Your task to perform on an android device: View the shopping cart on walmart. Search for "usb-b" on walmart, select the first entry, and add it to the cart. Image 0: 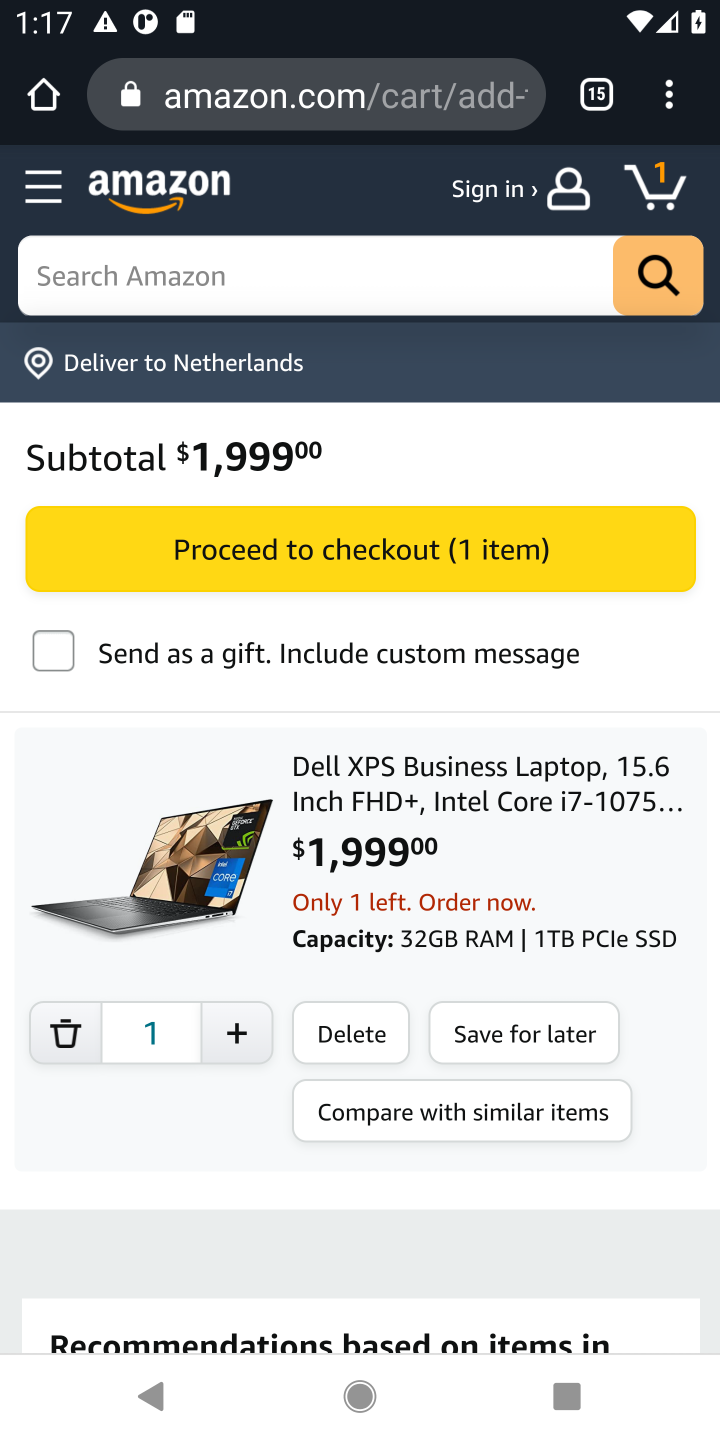
Step 0: press home button
Your task to perform on an android device: View the shopping cart on walmart. Search for "usb-b" on walmart, select the first entry, and add it to the cart. Image 1: 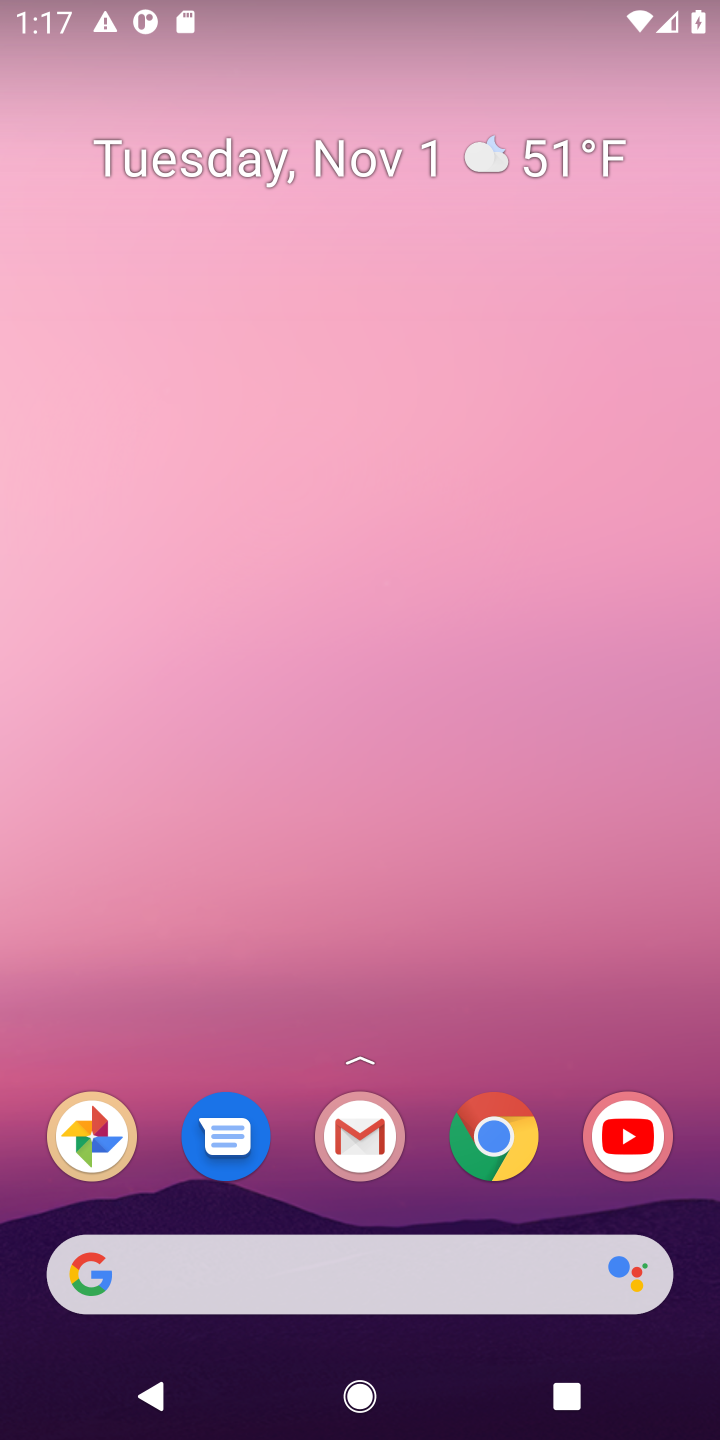
Step 1: click (143, 1268)
Your task to perform on an android device: View the shopping cart on walmart. Search for "usb-b" on walmart, select the first entry, and add it to the cart. Image 2: 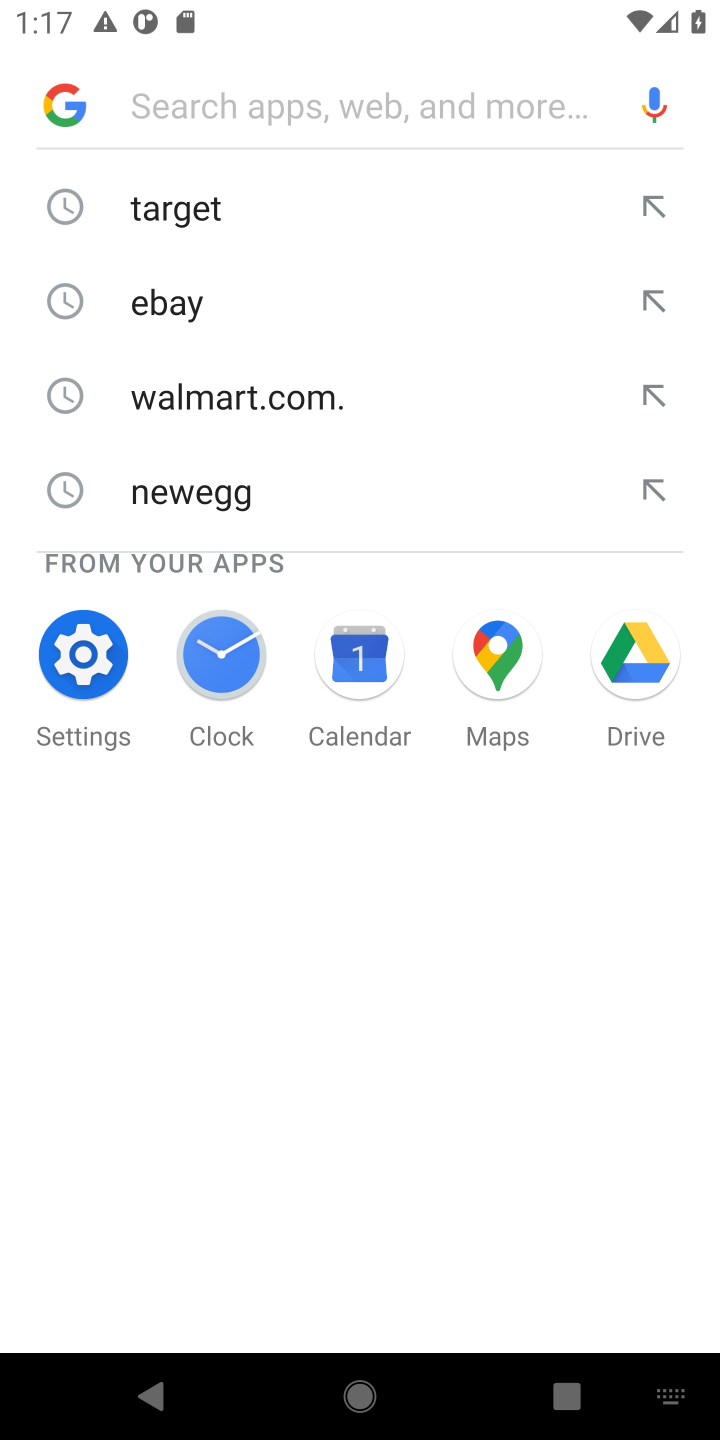
Step 2: type " walmart. "
Your task to perform on an android device: View the shopping cart on walmart. Search for "usb-b" on walmart, select the first entry, and add it to the cart. Image 3: 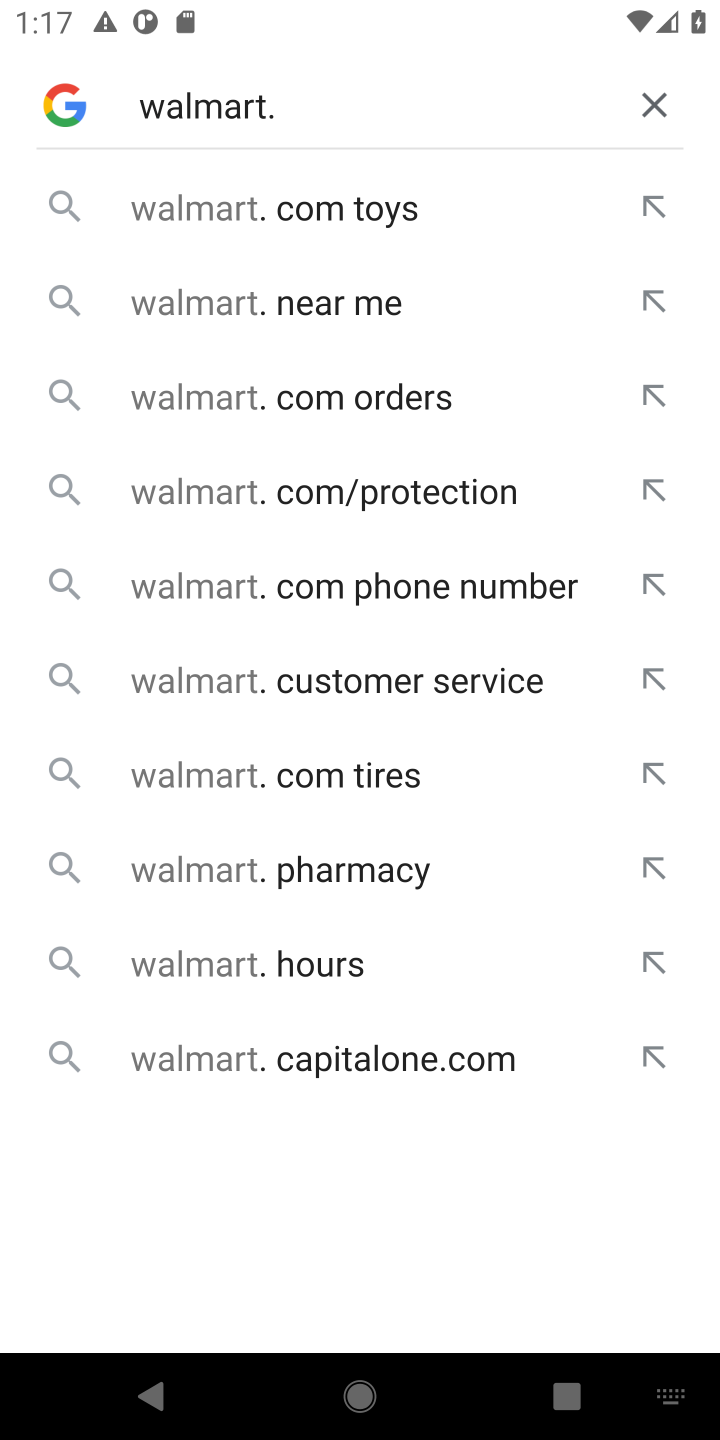
Step 3: press enter
Your task to perform on an android device: View the shopping cart on walmart. Search for "usb-b" on walmart, select the first entry, and add it to the cart. Image 4: 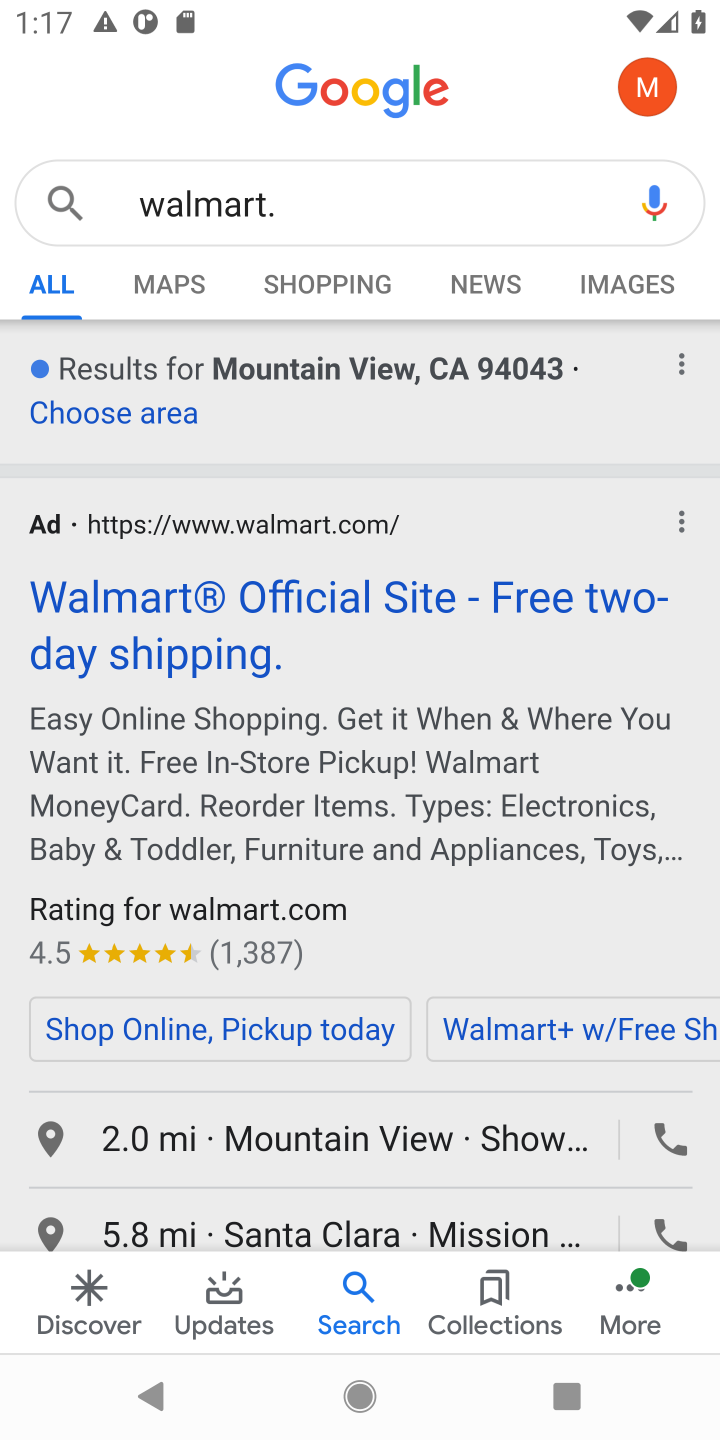
Step 4: click (252, 599)
Your task to perform on an android device: View the shopping cart on walmart. Search for "usb-b" on walmart, select the first entry, and add it to the cart. Image 5: 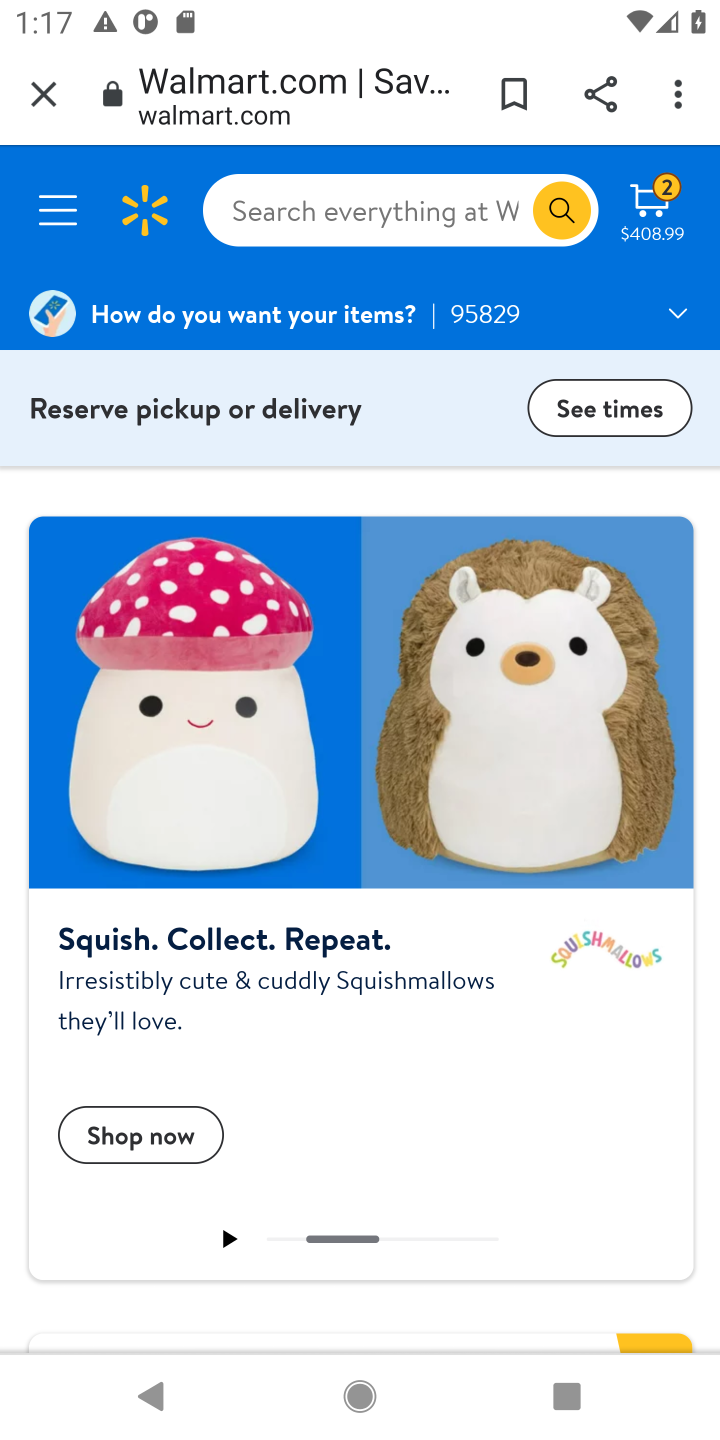
Step 5: click (273, 206)
Your task to perform on an android device: View the shopping cart on walmart. Search for "usb-b" on walmart, select the first entry, and add it to the cart. Image 6: 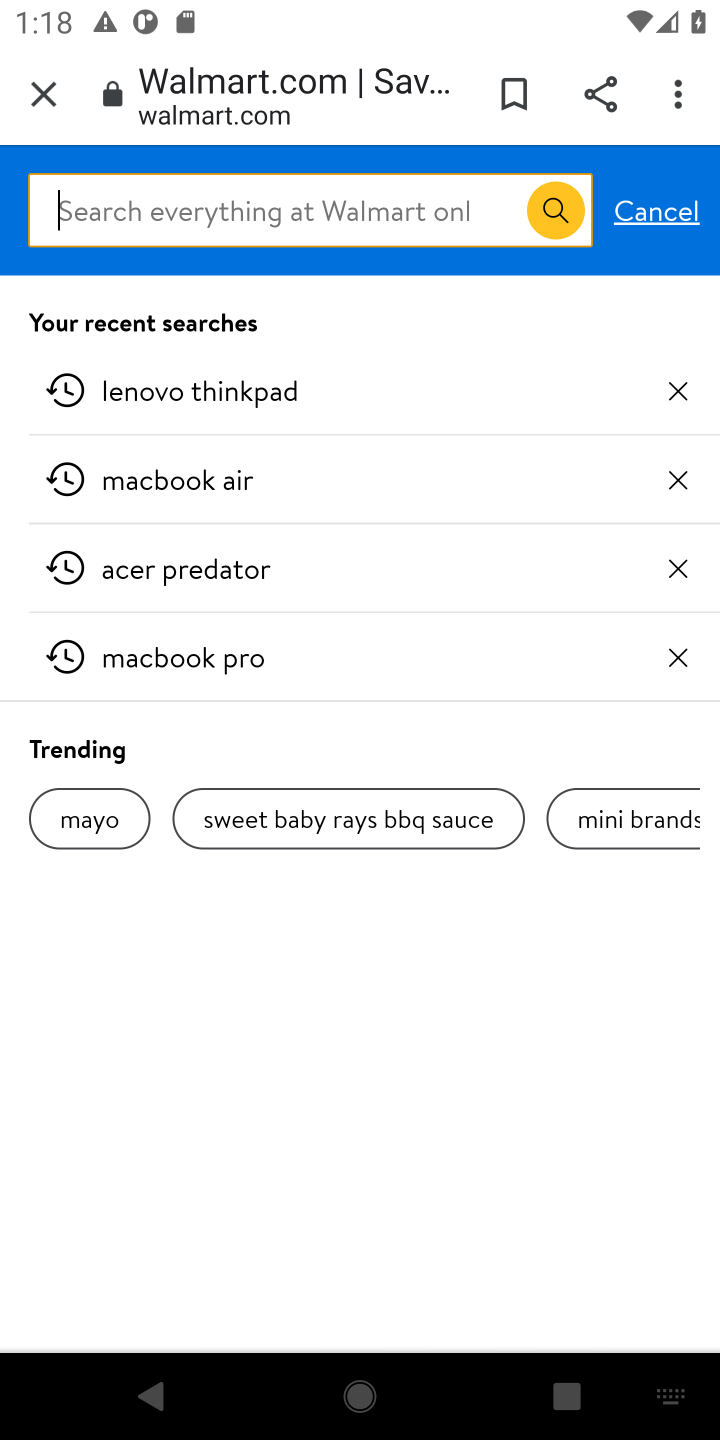
Step 6: type "usb b"
Your task to perform on an android device: View the shopping cart on walmart. Search for "usb-b" on walmart, select the first entry, and add it to the cart. Image 7: 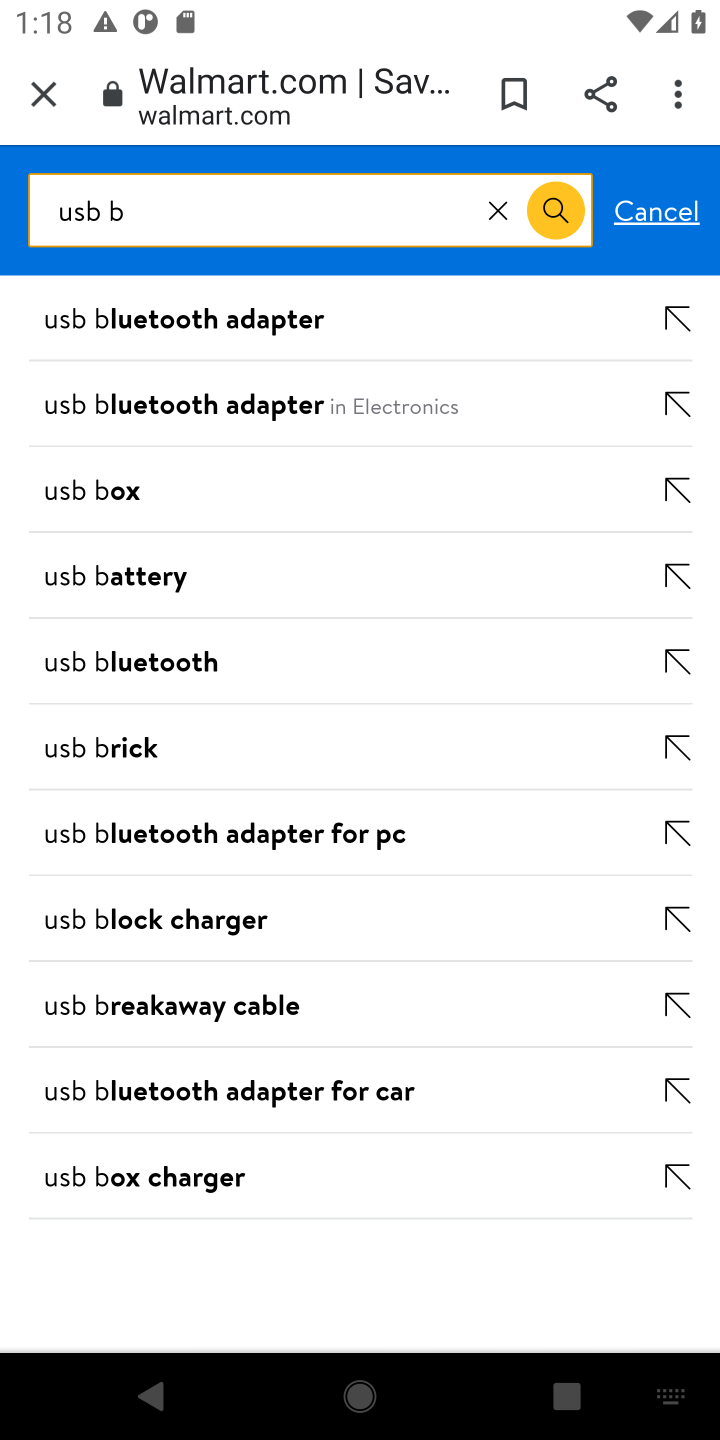
Step 7: click (558, 216)
Your task to perform on an android device: View the shopping cart on walmart. Search for "usb-b" on walmart, select the first entry, and add it to the cart. Image 8: 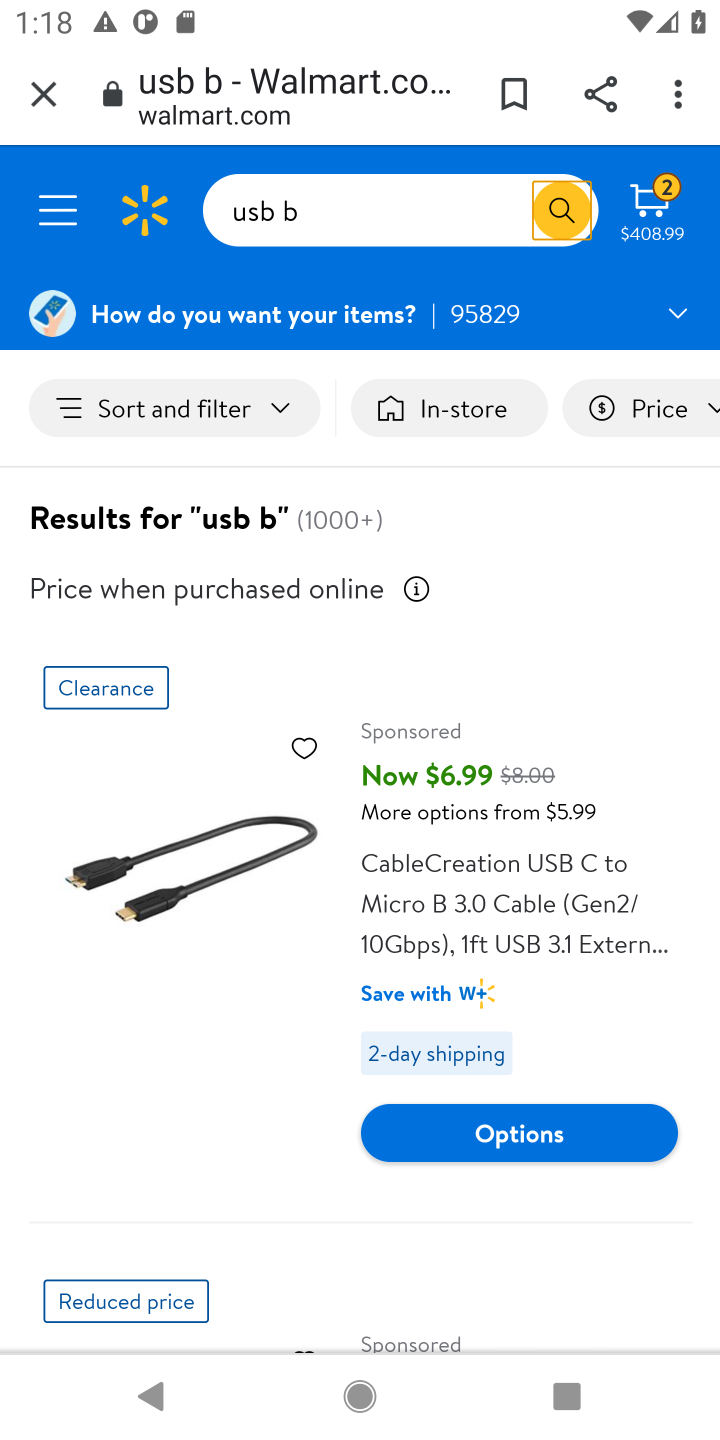
Step 8: drag from (527, 989) to (500, 590)
Your task to perform on an android device: View the shopping cart on walmart. Search for "usb-b" on walmart, select the first entry, and add it to the cart. Image 9: 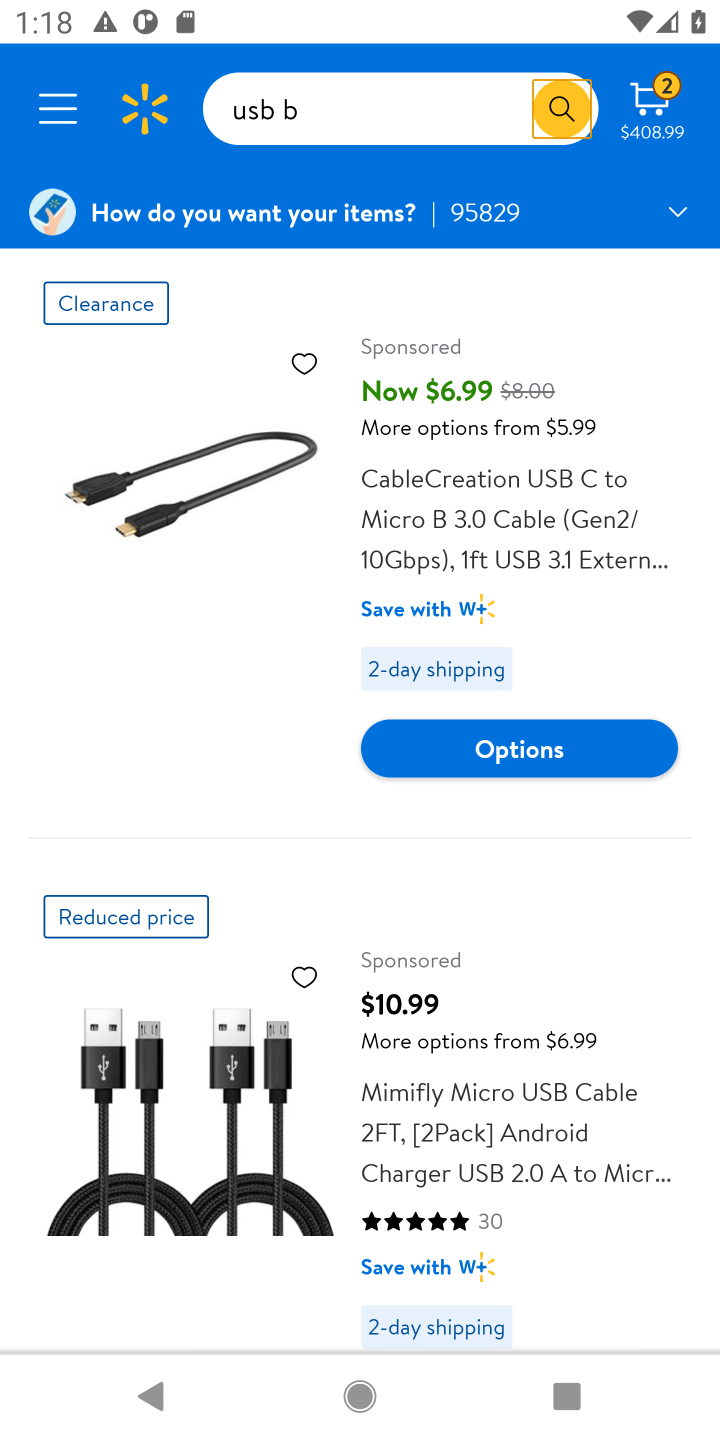
Step 9: drag from (494, 1182) to (532, 640)
Your task to perform on an android device: View the shopping cart on walmart. Search for "usb-b" on walmart, select the first entry, and add it to the cart. Image 10: 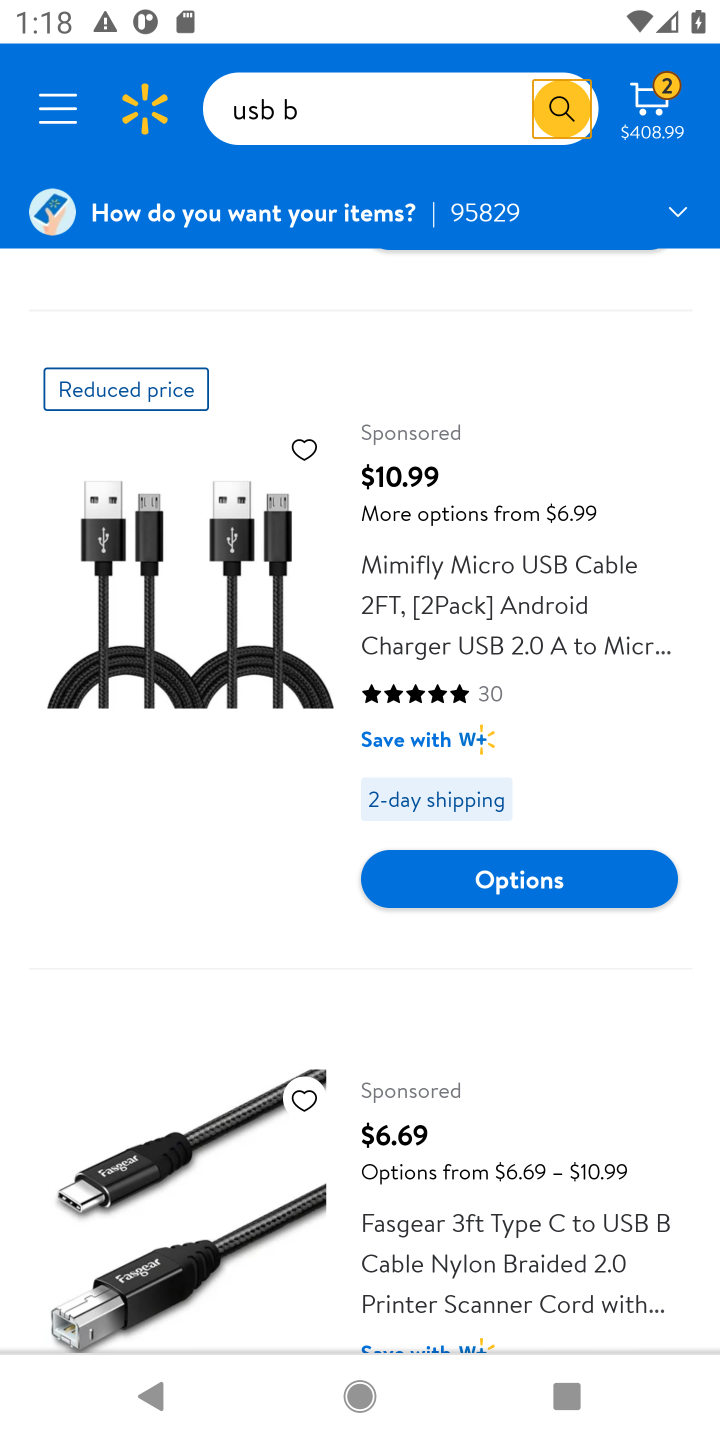
Step 10: drag from (522, 1013) to (504, 605)
Your task to perform on an android device: View the shopping cart on walmart. Search for "usb-b" on walmart, select the first entry, and add it to the cart. Image 11: 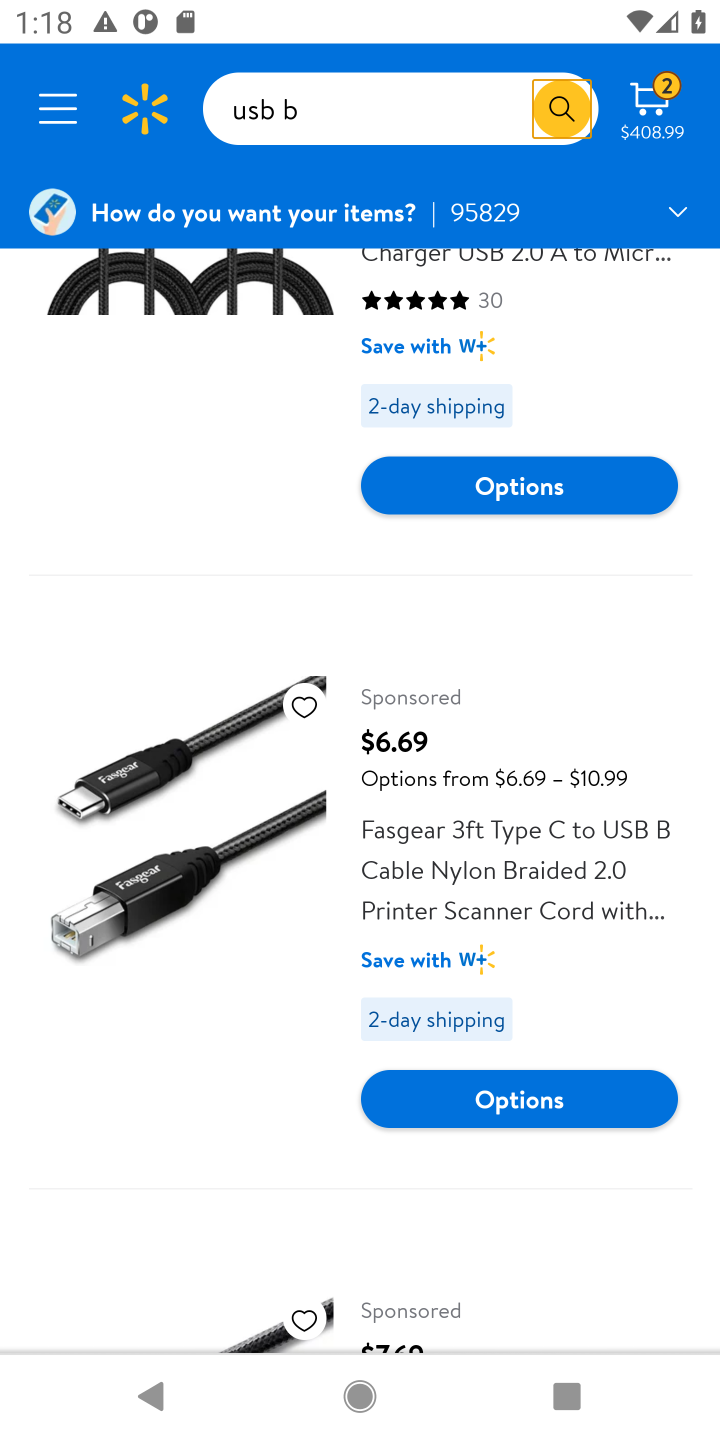
Step 11: click (510, 829)
Your task to perform on an android device: View the shopping cart on walmart. Search for "usb-b" on walmart, select the first entry, and add it to the cart. Image 12: 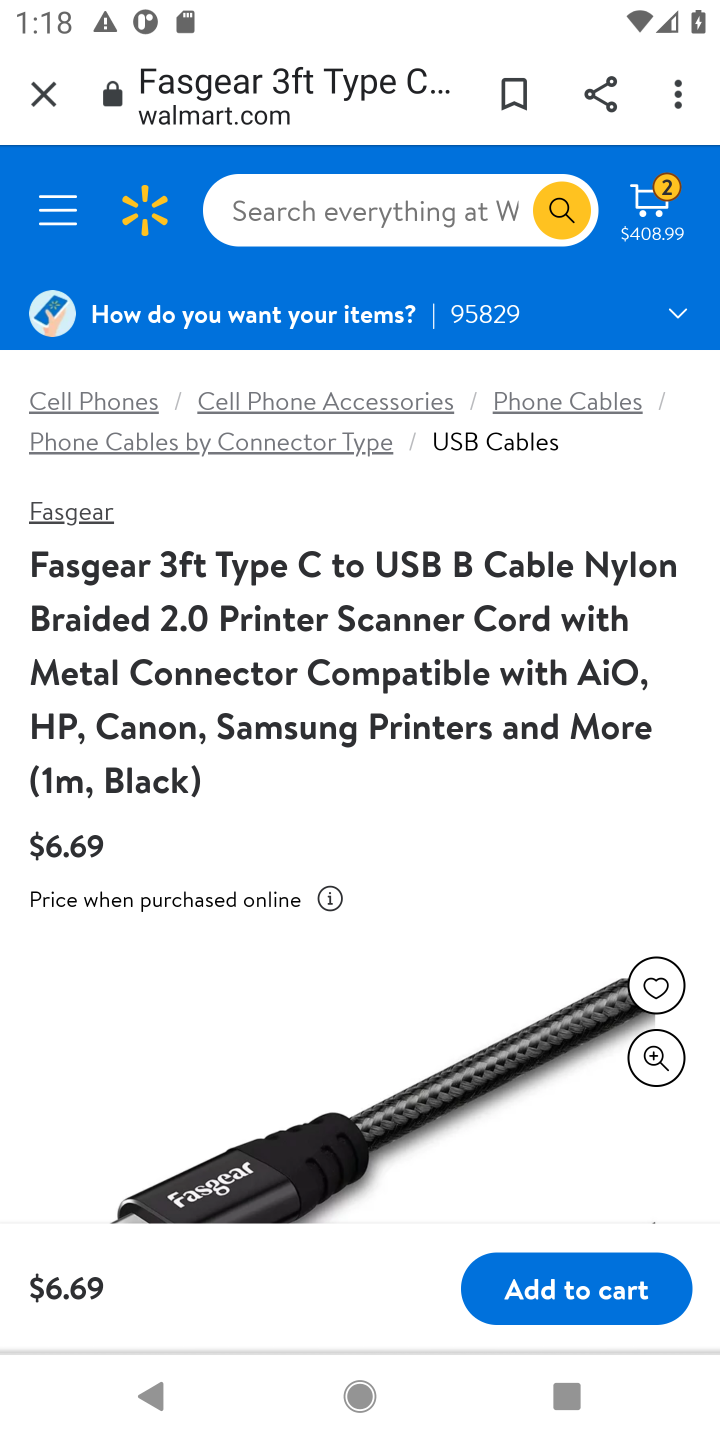
Step 12: click (569, 1303)
Your task to perform on an android device: View the shopping cart on walmart. Search for "usb-b" on walmart, select the first entry, and add it to the cart. Image 13: 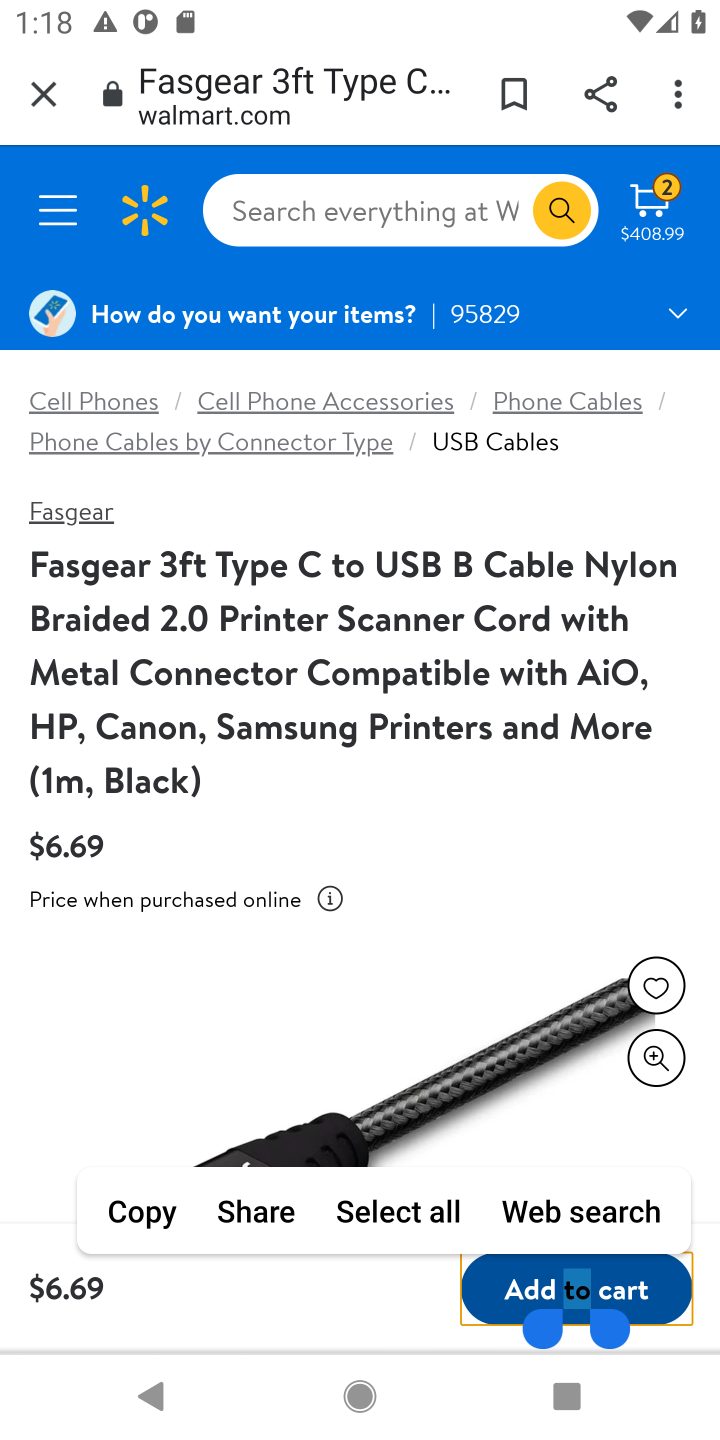
Step 13: click (490, 940)
Your task to perform on an android device: View the shopping cart on walmart. Search for "usb-b" on walmart, select the first entry, and add it to the cart. Image 14: 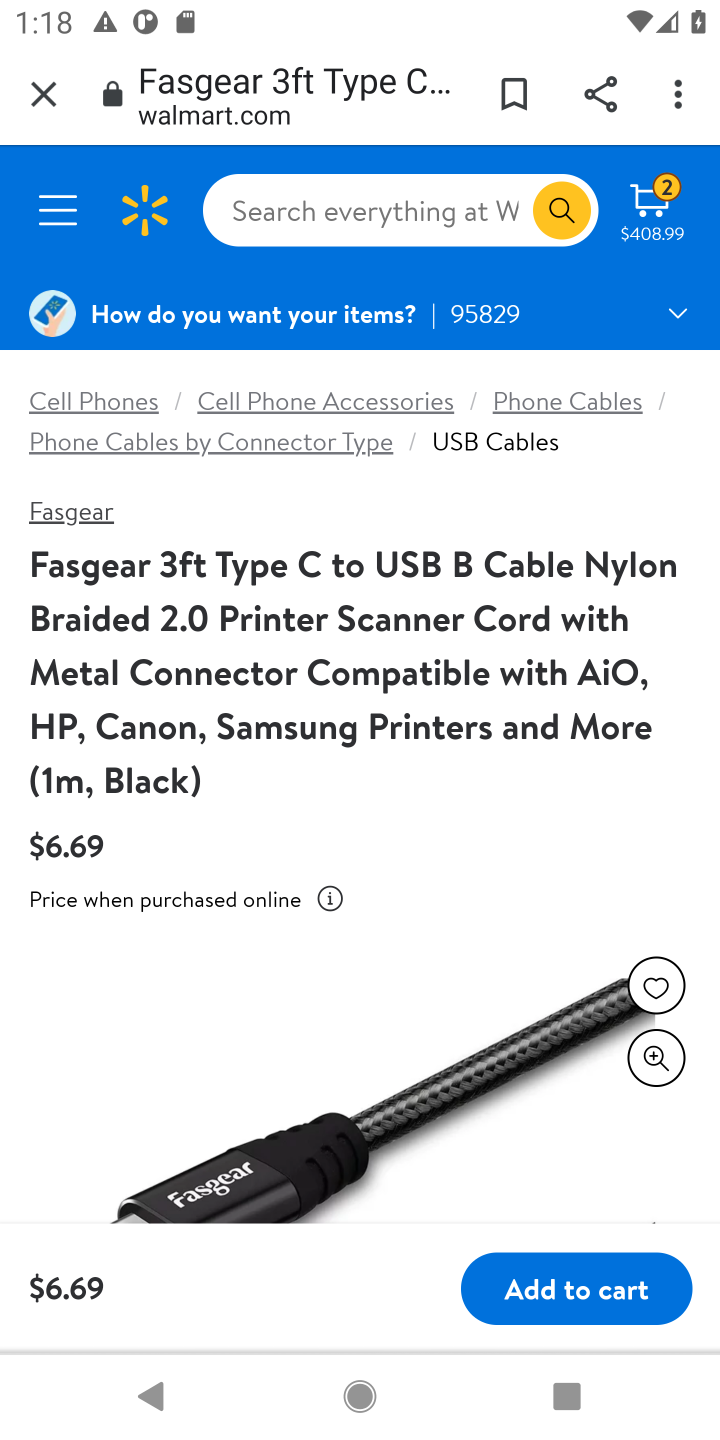
Step 14: click (542, 1302)
Your task to perform on an android device: View the shopping cart on walmart. Search for "usb-b" on walmart, select the first entry, and add it to the cart. Image 15: 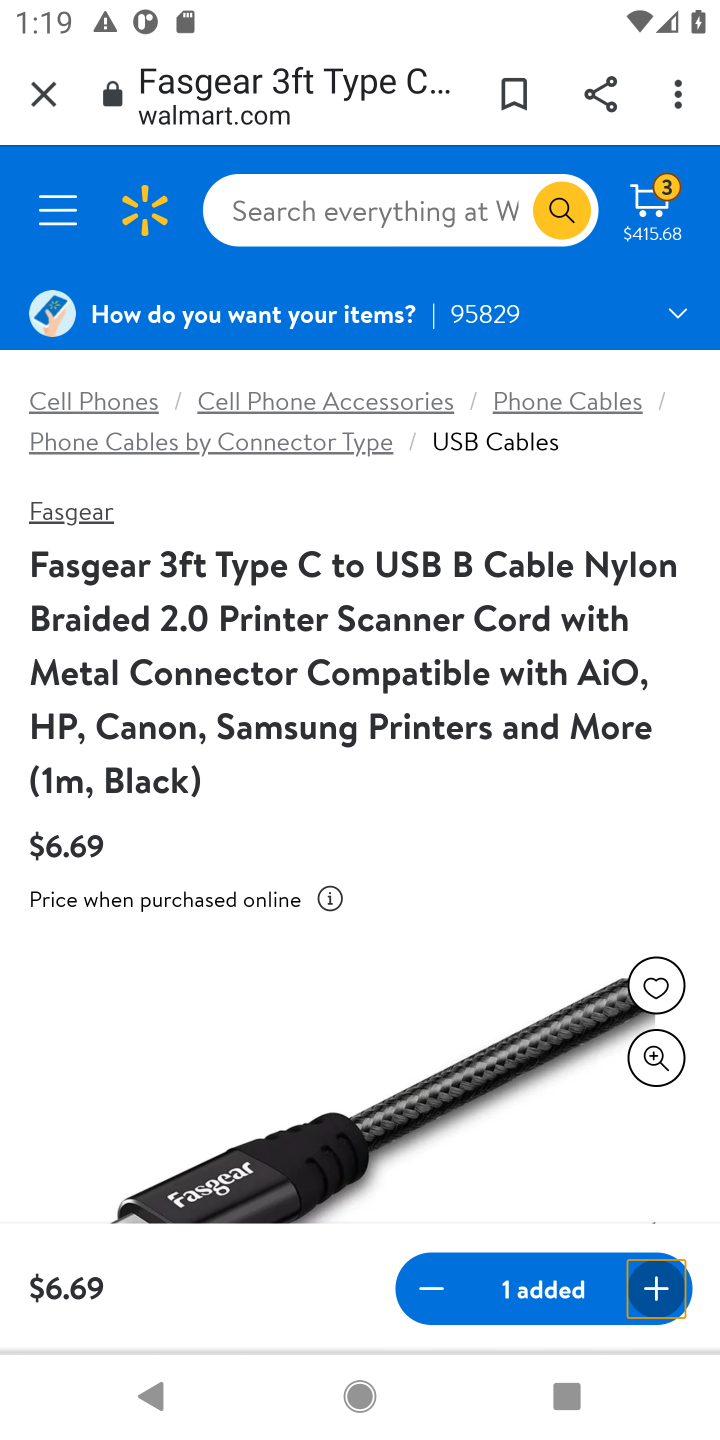
Step 15: task complete